Your task to perform on an android device: Go to battery settings Image 0: 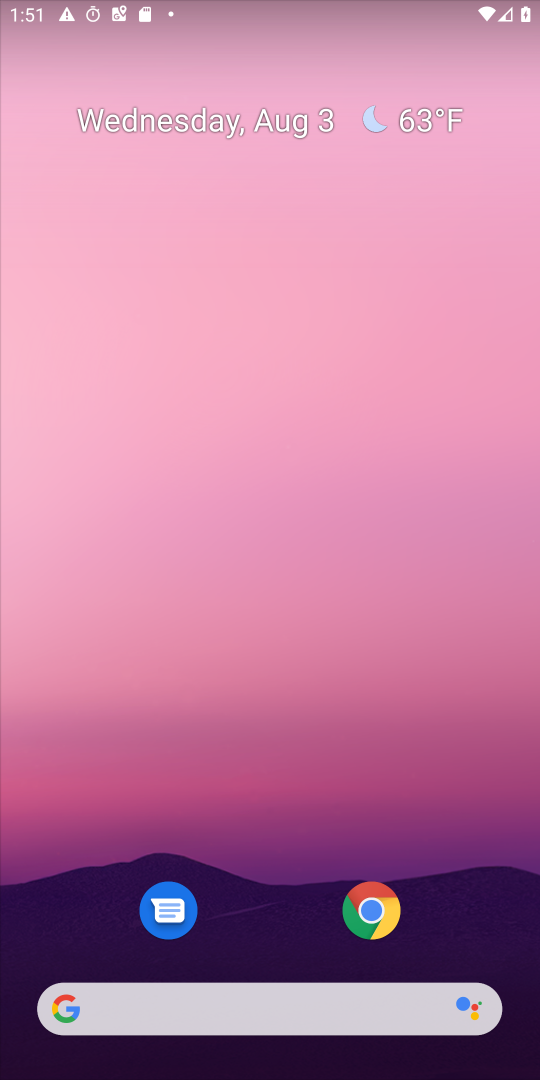
Step 0: drag from (338, 793) to (527, 651)
Your task to perform on an android device: Go to battery settings Image 1: 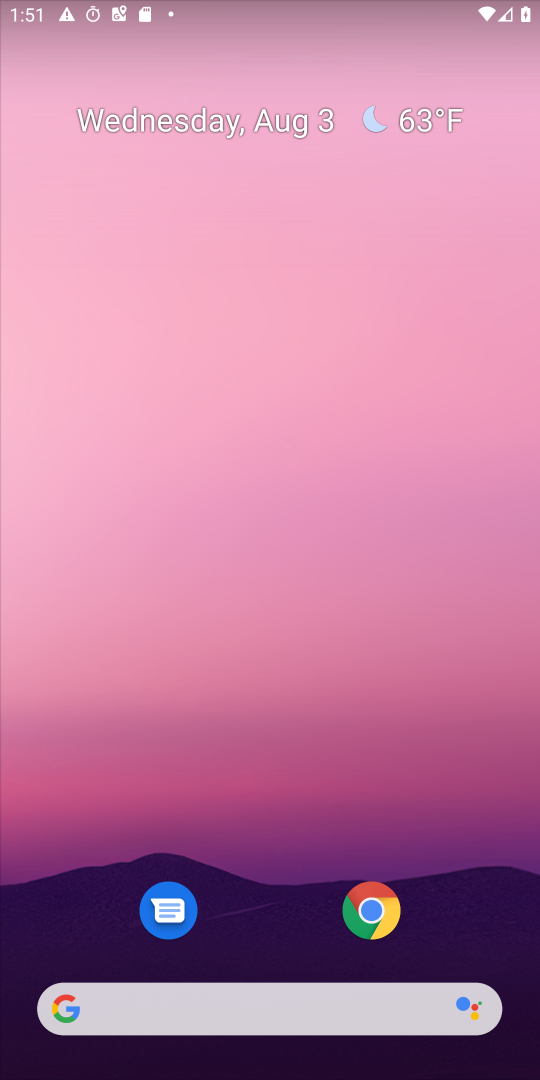
Step 1: drag from (341, 895) to (364, 2)
Your task to perform on an android device: Go to battery settings Image 2: 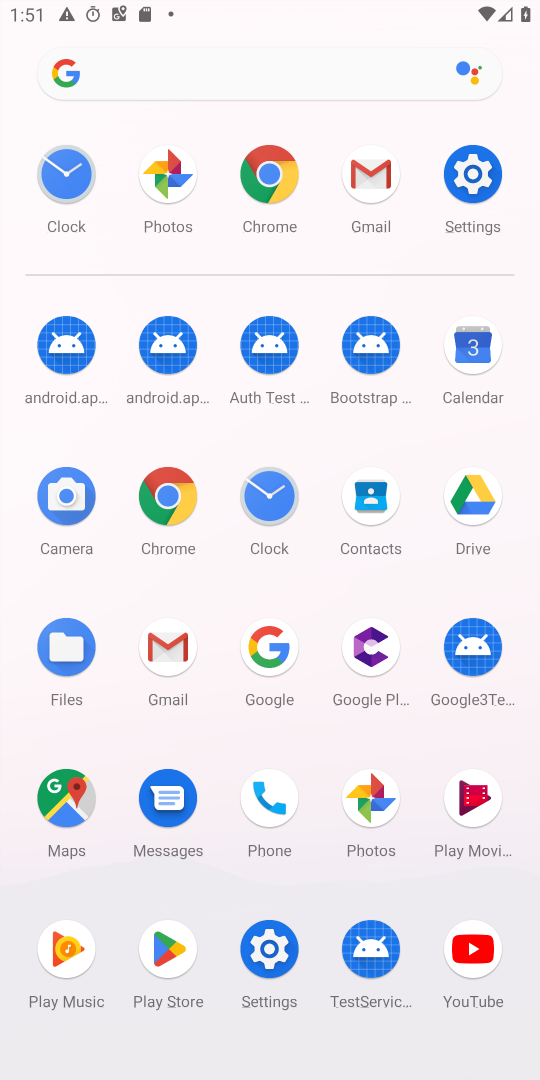
Step 2: click (478, 177)
Your task to perform on an android device: Go to battery settings Image 3: 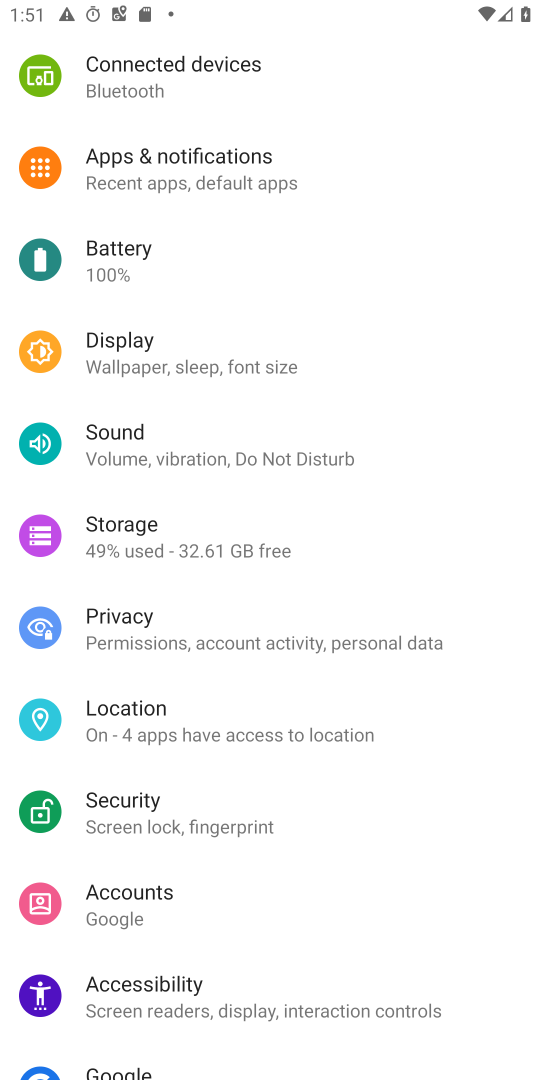
Step 3: click (158, 262)
Your task to perform on an android device: Go to battery settings Image 4: 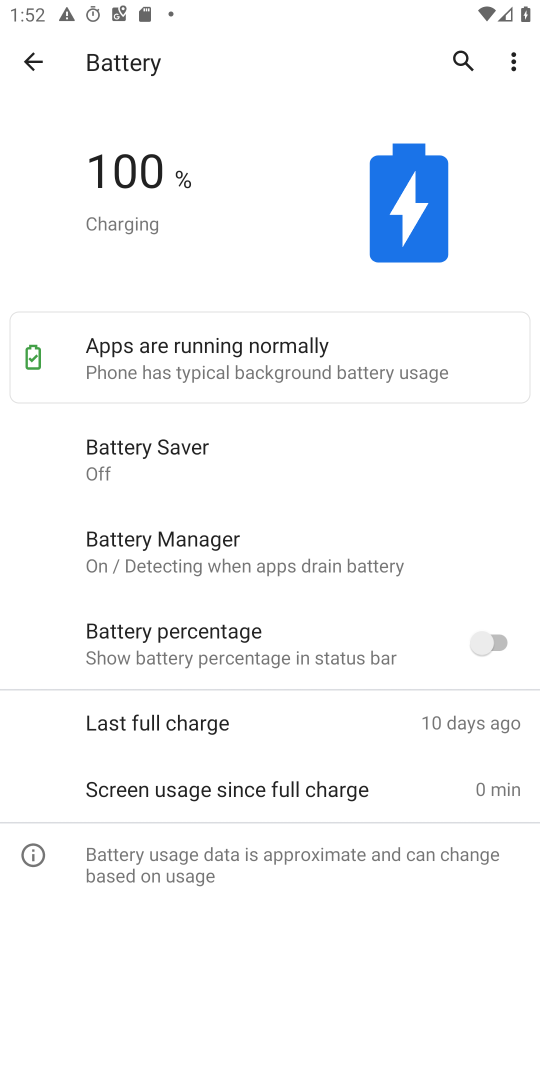
Step 4: click (158, 262)
Your task to perform on an android device: Go to battery settings Image 5: 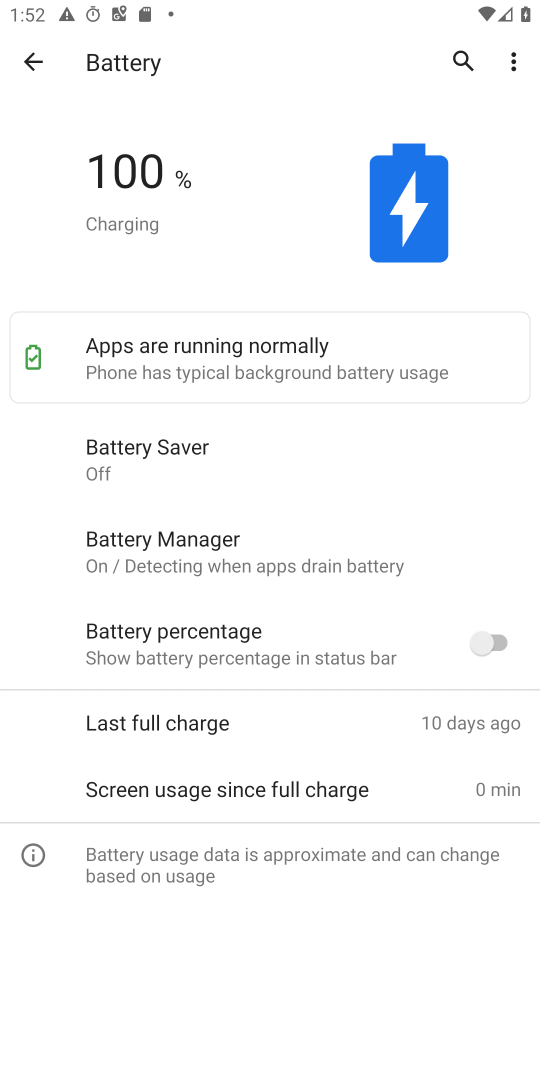
Step 5: task complete